Your task to perform on an android device: Show me productivity apps on the Play Store Image 0: 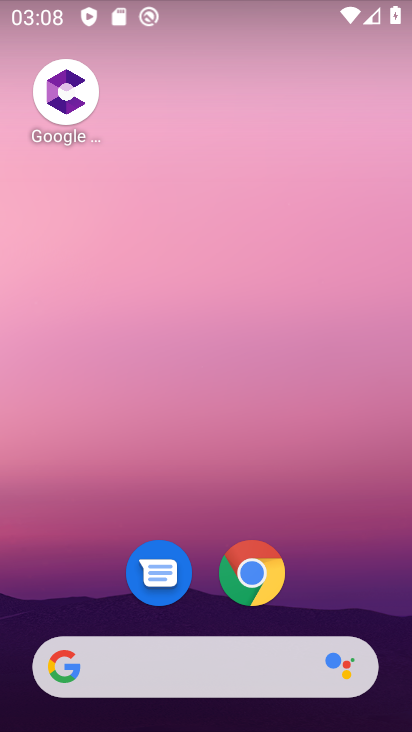
Step 0: drag from (213, 616) to (272, 46)
Your task to perform on an android device: Show me productivity apps on the Play Store Image 1: 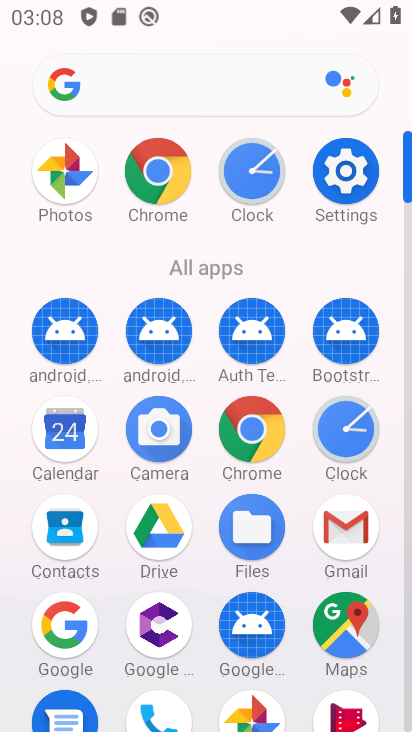
Step 1: drag from (167, 605) to (249, 117)
Your task to perform on an android device: Show me productivity apps on the Play Store Image 2: 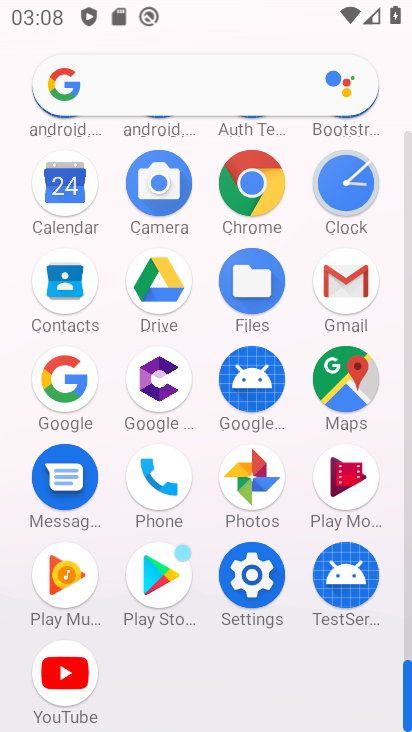
Step 2: click (156, 552)
Your task to perform on an android device: Show me productivity apps on the Play Store Image 3: 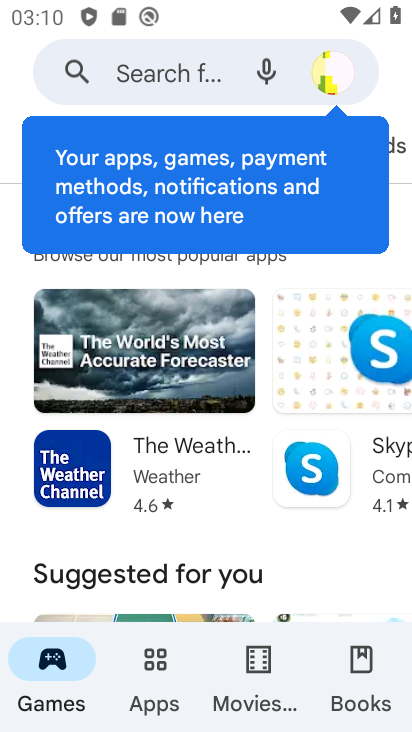
Step 3: click (163, 673)
Your task to perform on an android device: Show me productivity apps on the Play Store Image 4: 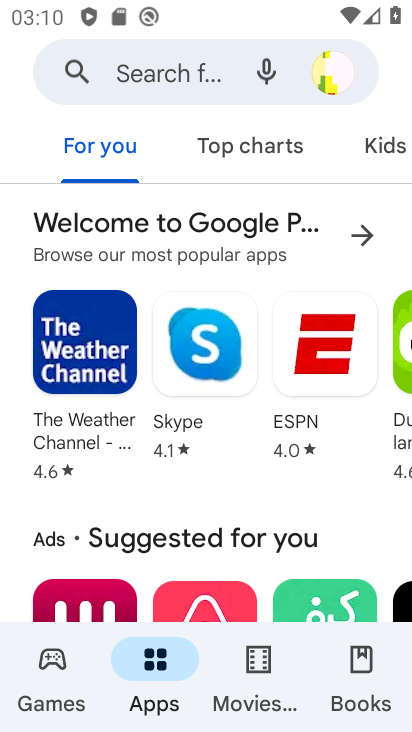
Step 4: drag from (177, 585) to (300, 127)
Your task to perform on an android device: Show me productivity apps on the Play Store Image 5: 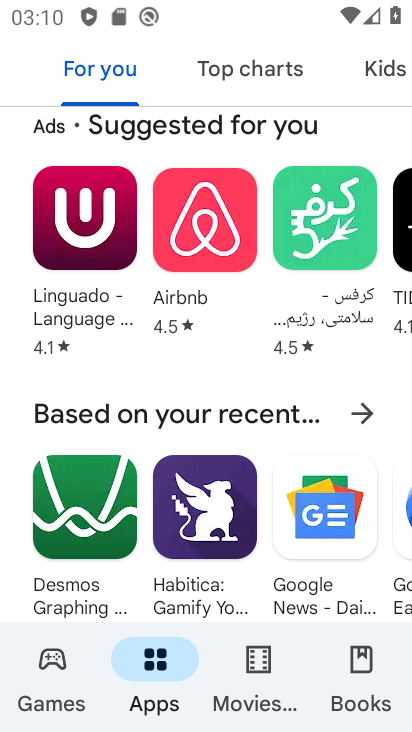
Step 5: drag from (278, 475) to (307, 8)
Your task to perform on an android device: Show me productivity apps on the Play Store Image 6: 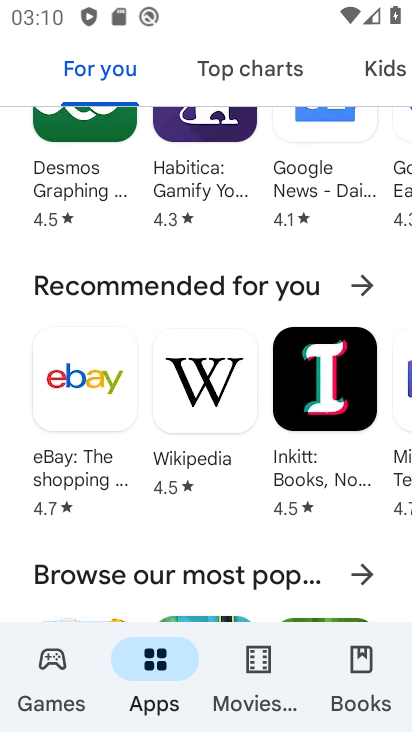
Step 6: drag from (294, 577) to (324, 64)
Your task to perform on an android device: Show me productivity apps on the Play Store Image 7: 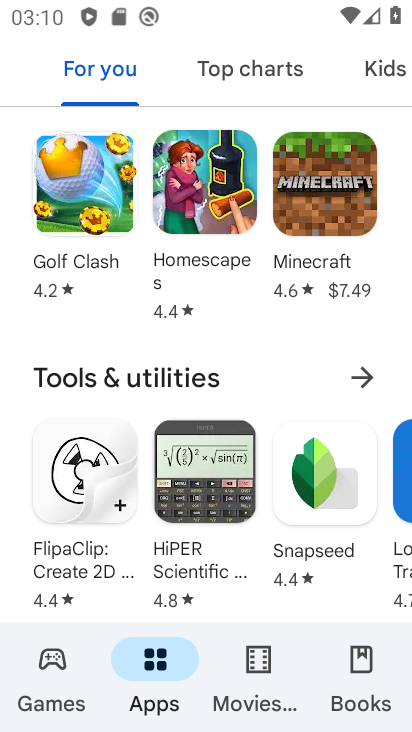
Step 7: drag from (184, 562) to (261, 137)
Your task to perform on an android device: Show me productivity apps on the Play Store Image 8: 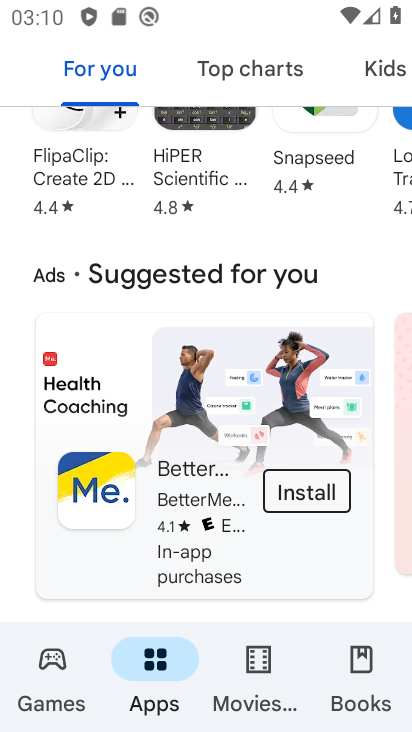
Step 8: drag from (139, 530) to (248, 44)
Your task to perform on an android device: Show me productivity apps on the Play Store Image 9: 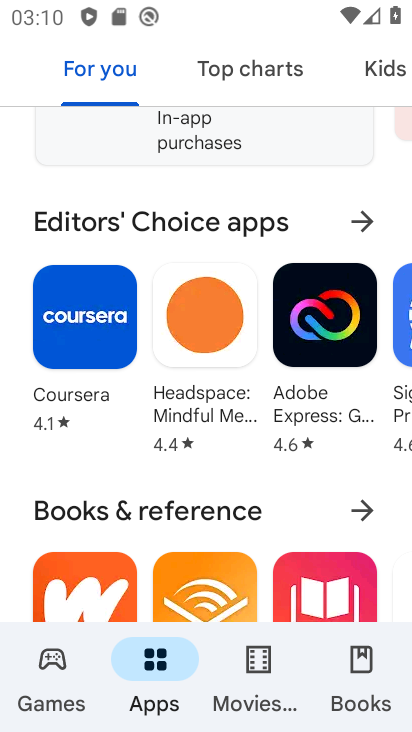
Step 9: drag from (267, 562) to (333, 51)
Your task to perform on an android device: Show me productivity apps on the Play Store Image 10: 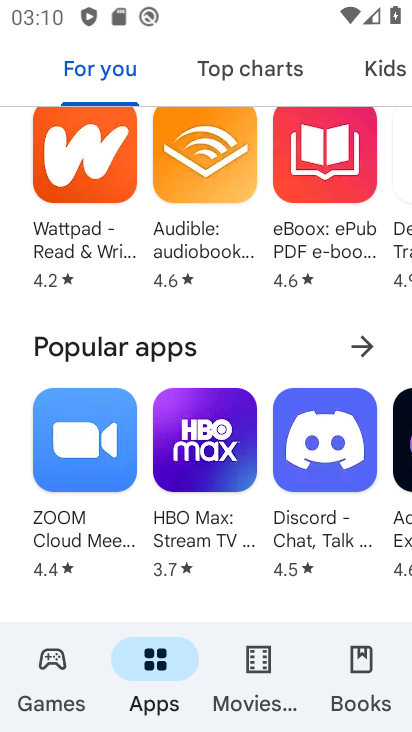
Step 10: drag from (208, 471) to (282, 59)
Your task to perform on an android device: Show me productivity apps on the Play Store Image 11: 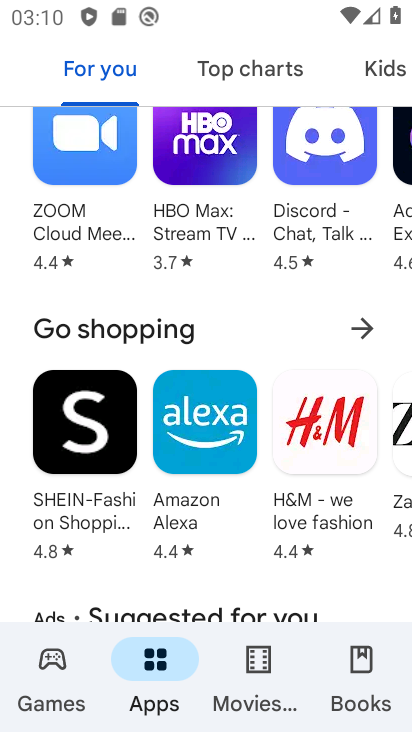
Step 11: drag from (162, 571) to (241, 90)
Your task to perform on an android device: Show me productivity apps on the Play Store Image 12: 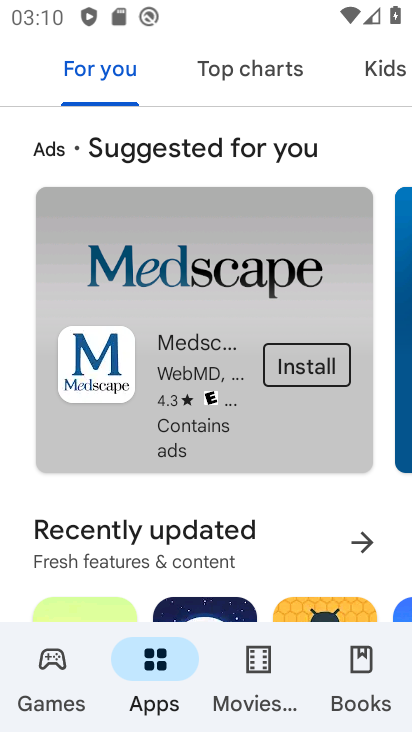
Step 12: drag from (178, 518) to (204, 156)
Your task to perform on an android device: Show me productivity apps on the Play Store Image 13: 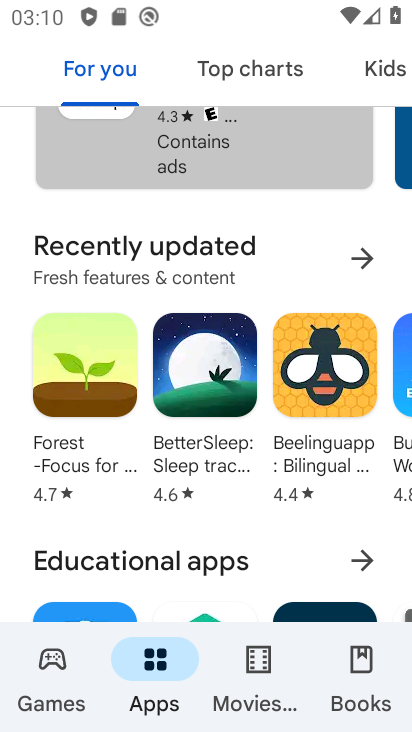
Step 13: drag from (158, 601) to (214, 182)
Your task to perform on an android device: Show me productivity apps on the Play Store Image 14: 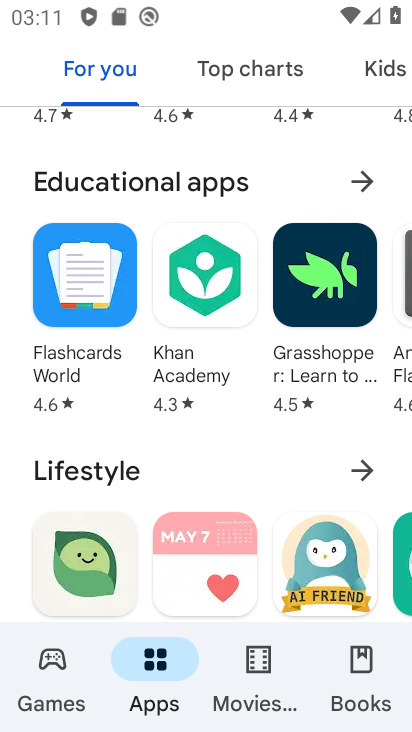
Step 14: drag from (184, 537) to (299, 0)
Your task to perform on an android device: Show me productivity apps on the Play Store Image 15: 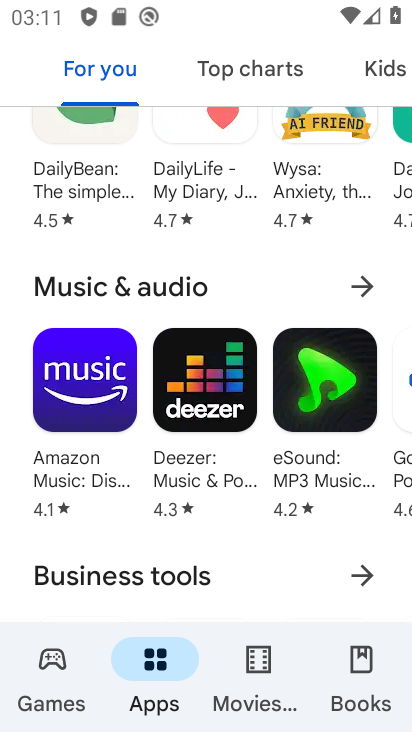
Step 15: drag from (136, 520) to (245, 2)
Your task to perform on an android device: Show me productivity apps on the Play Store Image 16: 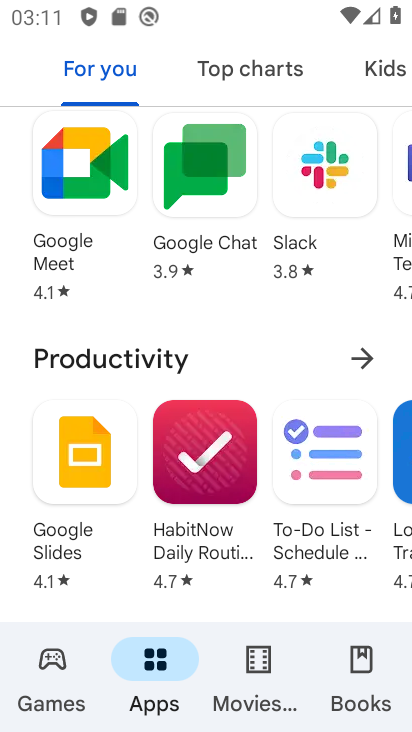
Step 16: click (357, 353)
Your task to perform on an android device: Show me productivity apps on the Play Store Image 17: 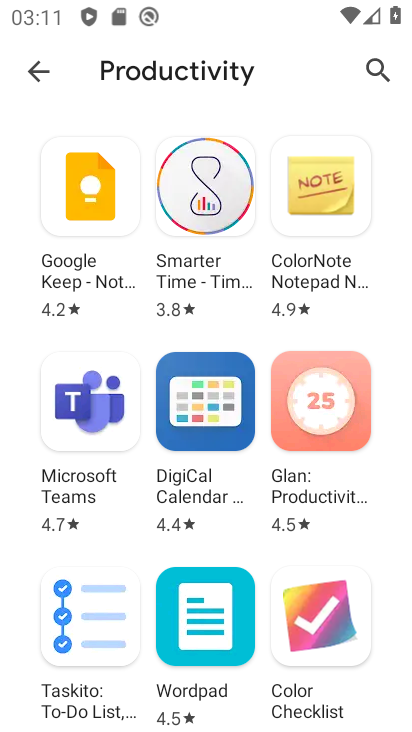
Step 17: task complete